Your task to perform on an android device: turn on notifications settings in the gmail app Image 0: 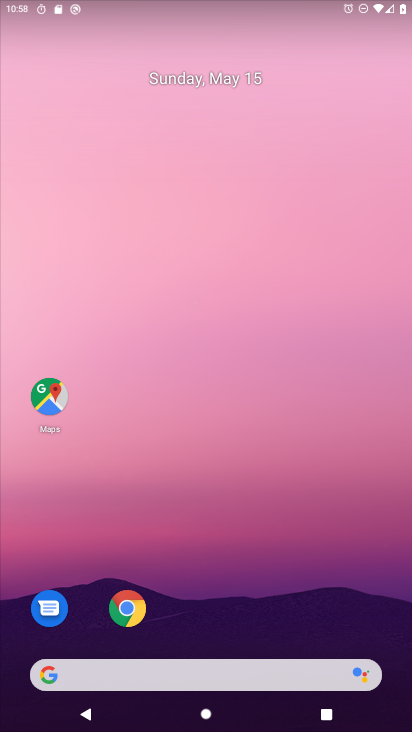
Step 0: drag from (326, 603) to (297, 212)
Your task to perform on an android device: turn on notifications settings in the gmail app Image 1: 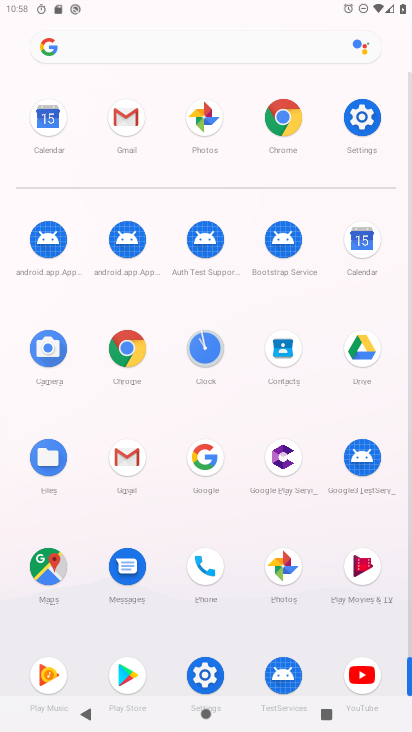
Step 1: click (127, 463)
Your task to perform on an android device: turn on notifications settings in the gmail app Image 2: 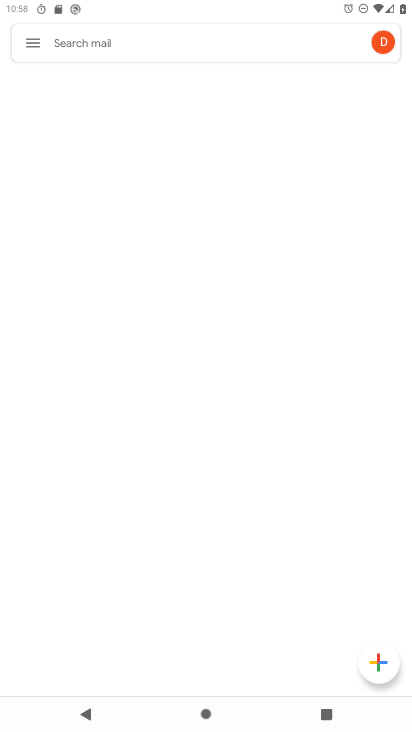
Step 2: click (39, 59)
Your task to perform on an android device: turn on notifications settings in the gmail app Image 3: 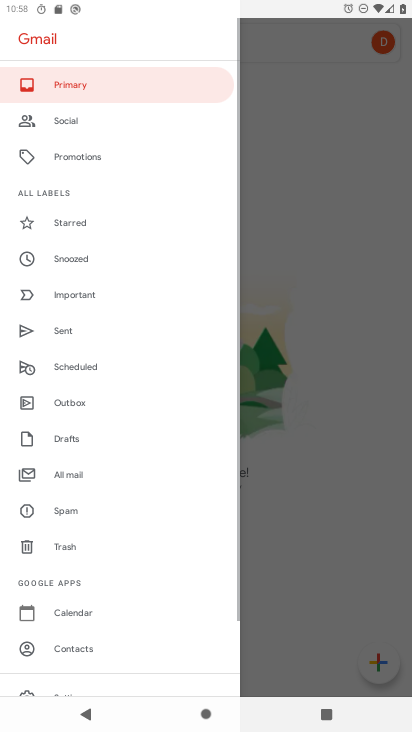
Step 3: drag from (100, 673) to (142, 381)
Your task to perform on an android device: turn on notifications settings in the gmail app Image 4: 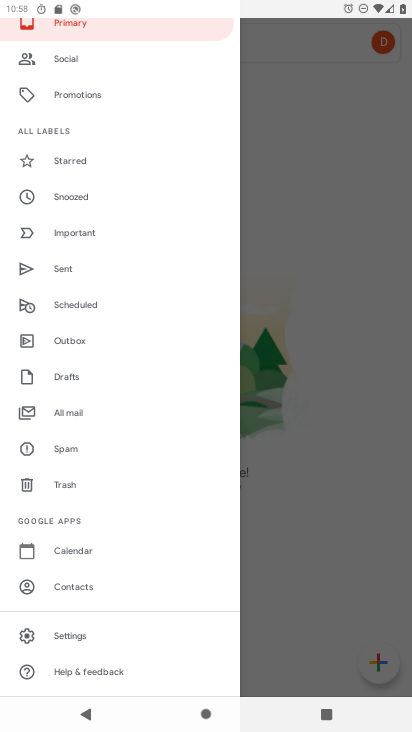
Step 4: click (123, 639)
Your task to perform on an android device: turn on notifications settings in the gmail app Image 5: 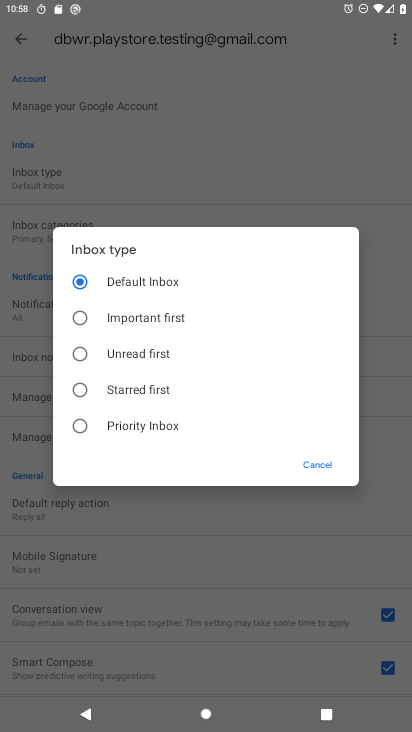
Step 5: click (314, 461)
Your task to perform on an android device: turn on notifications settings in the gmail app Image 6: 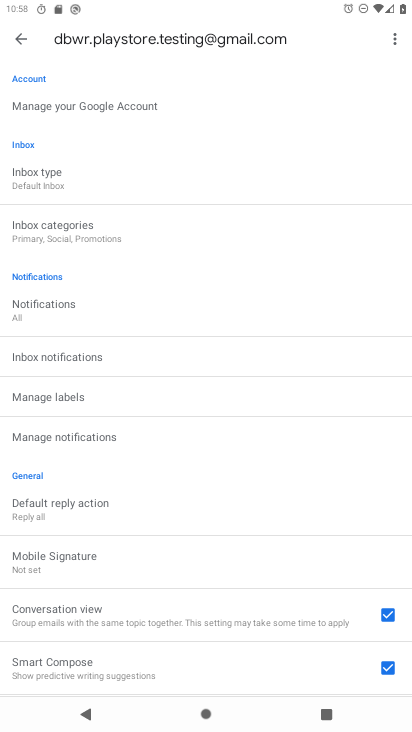
Step 6: click (33, 306)
Your task to perform on an android device: turn on notifications settings in the gmail app Image 7: 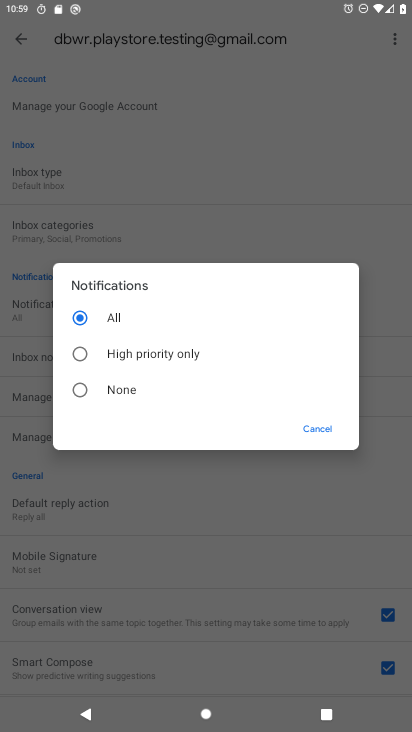
Step 7: task complete